Your task to perform on an android device: Show me recent news Image 0: 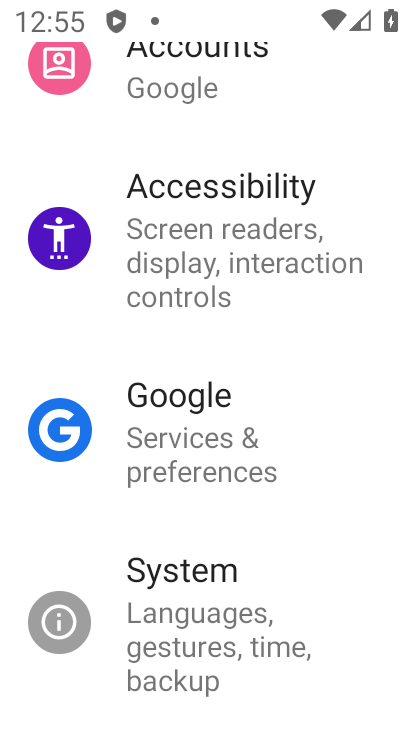
Step 0: press back button
Your task to perform on an android device: Show me recent news Image 1: 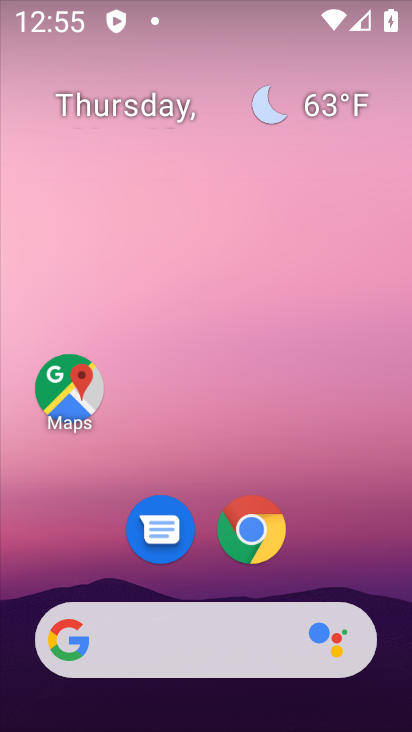
Step 1: drag from (348, 560) to (203, 52)
Your task to perform on an android device: Show me recent news Image 2: 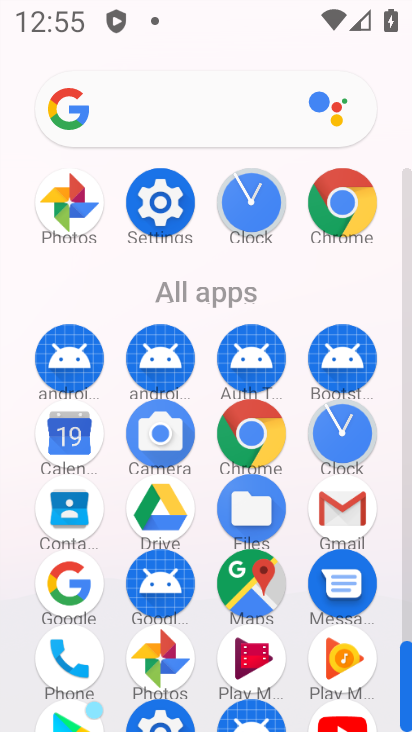
Step 2: click (63, 578)
Your task to perform on an android device: Show me recent news Image 3: 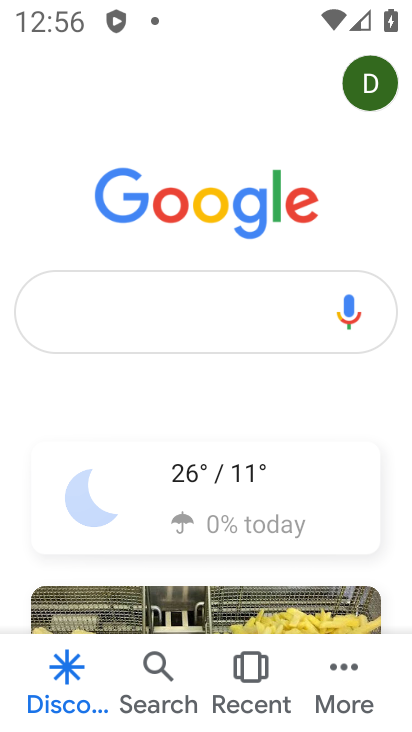
Step 3: click (186, 304)
Your task to perform on an android device: Show me recent news Image 4: 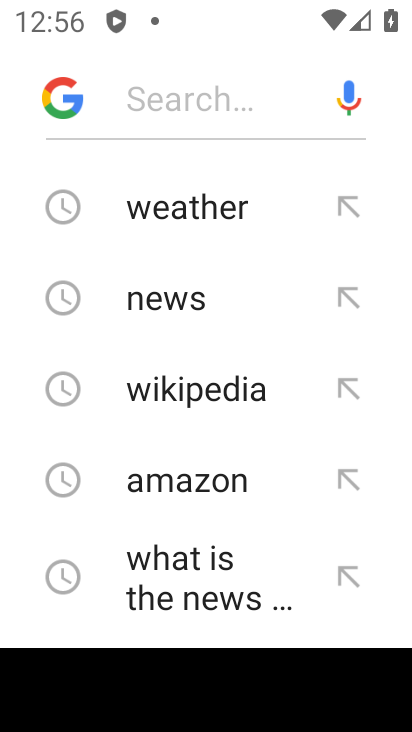
Step 4: type "recent news"
Your task to perform on an android device: Show me recent news Image 5: 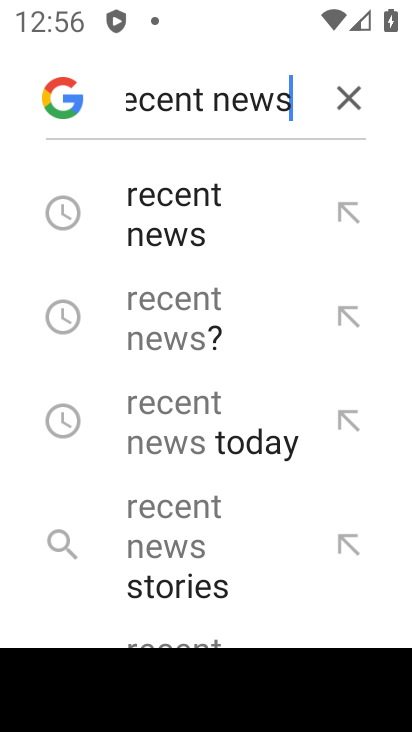
Step 5: click (160, 193)
Your task to perform on an android device: Show me recent news Image 6: 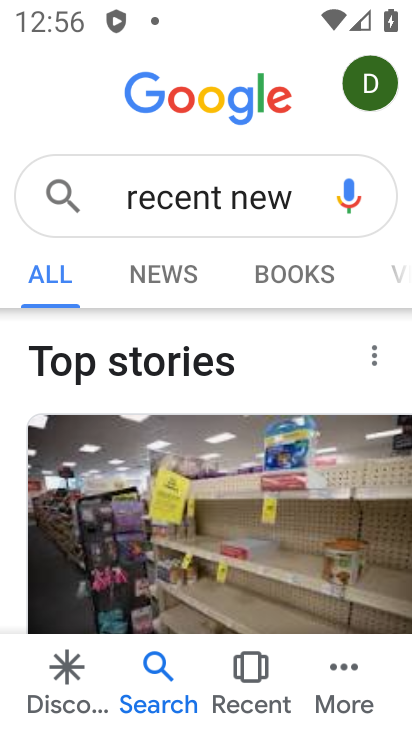
Step 6: task complete